Your task to perform on an android device: turn notification dots on Image 0: 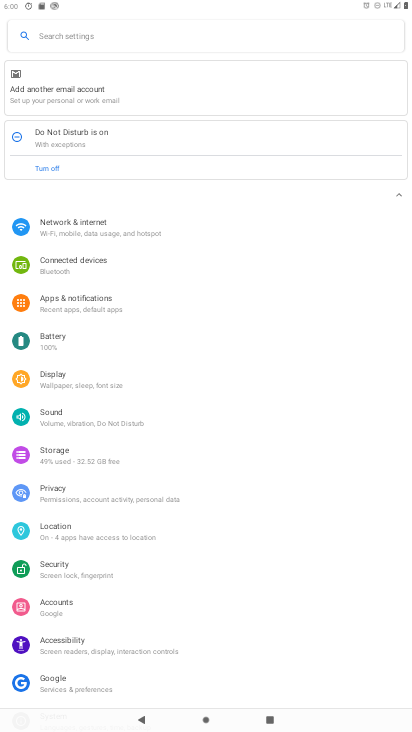
Step 0: press home button
Your task to perform on an android device: turn notification dots on Image 1: 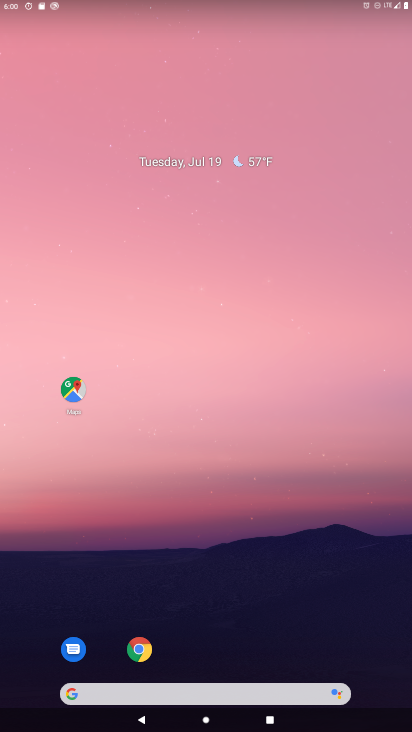
Step 1: drag from (169, 652) to (132, 200)
Your task to perform on an android device: turn notification dots on Image 2: 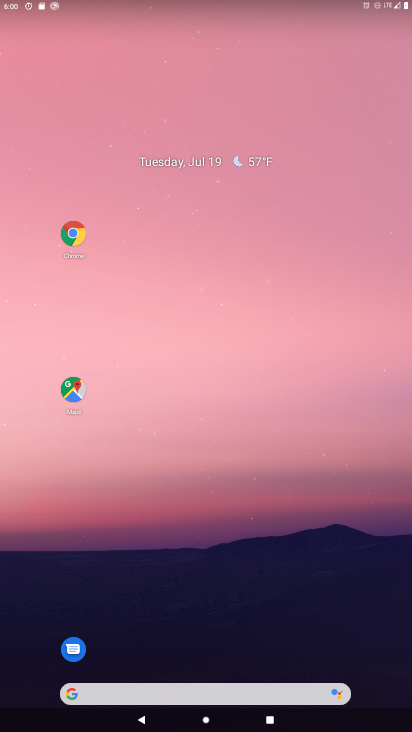
Step 2: drag from (276, 579) to (92, 0)
Your task to perform on an android device: turn notification dots on Image 3: 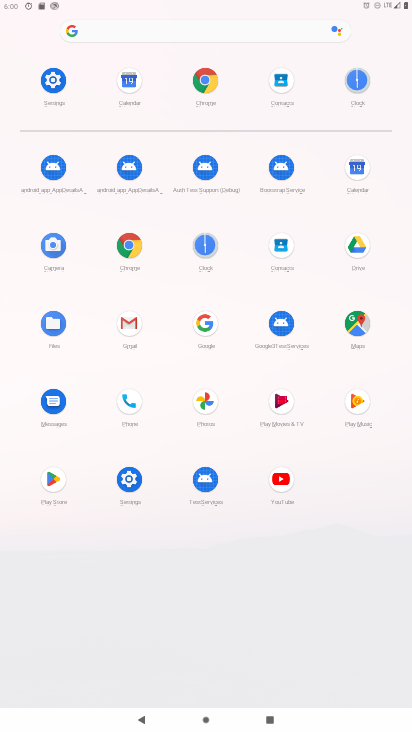
Step 3: click (47, 93)
Your task to perform on an android device: turn notification dots on Image 4: 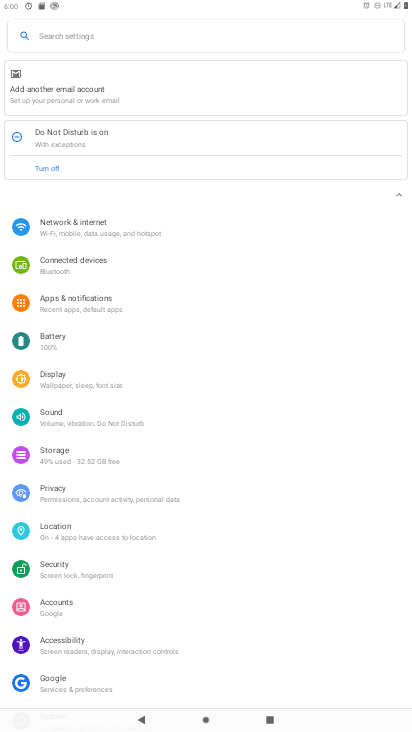
Step 4: click (66, 306)
Your task to perform on an android device: turn notification dots on Image 5: 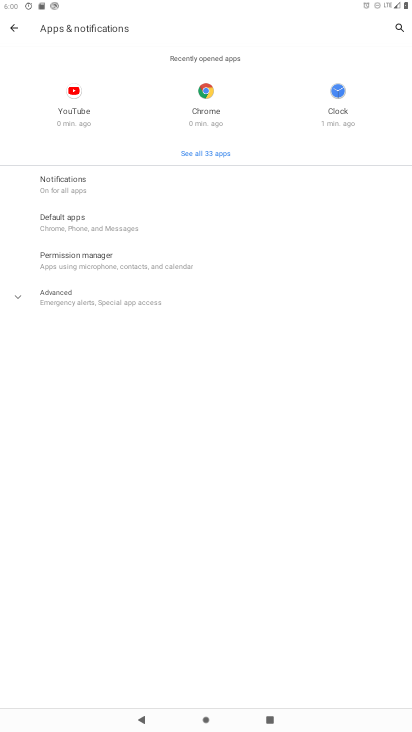
Step 5: click (60, 179)
Your task to perform on an android device: turn notification dots on Image 6: 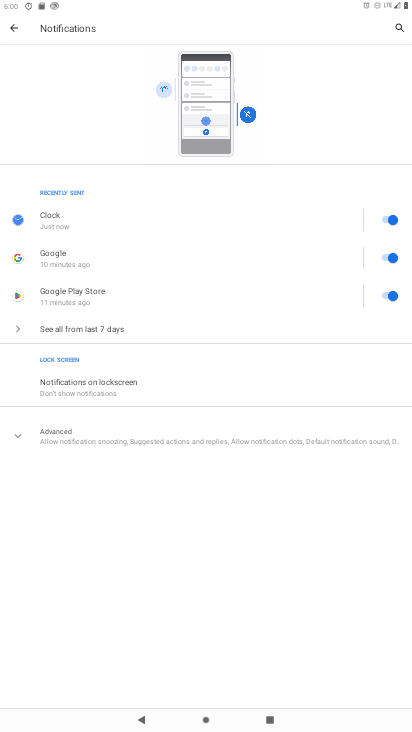
Step 6: click (60, 429)
Your task to perform on an android device: turn notification dots on Image 7: 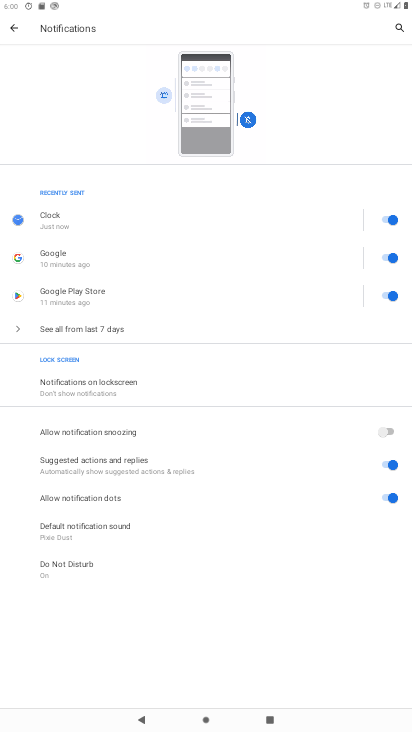
Step 7: task complete